Your task to perform on an android device: check storage Image 0: 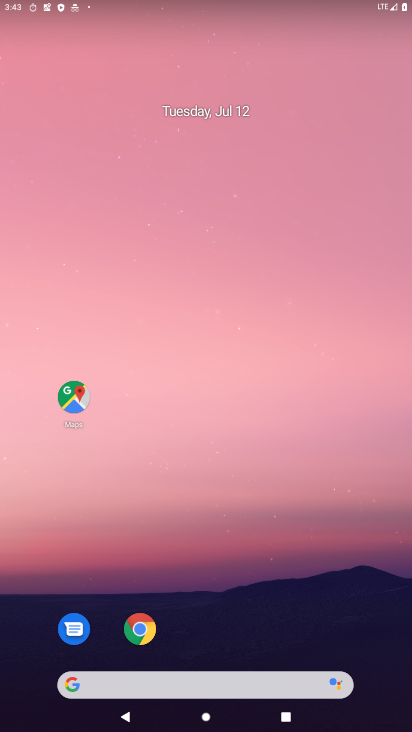
Step 0: drag from (309, 607) to (393, 75)
Your task to perform on an android device: check storage Image 1: 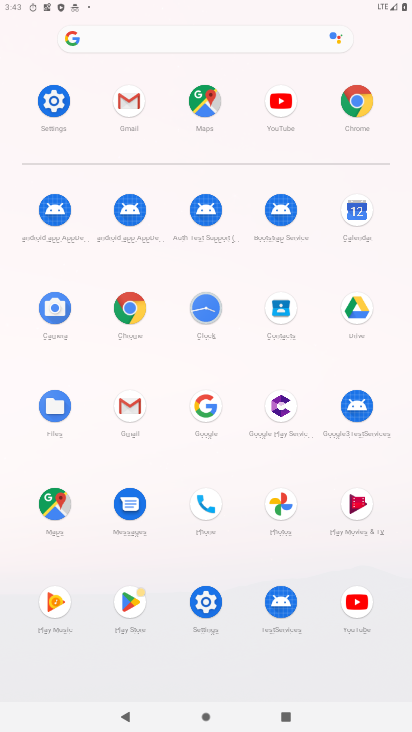
Step 1: click (201, 594)
Your task to perform on an android device: check storage Image 2: 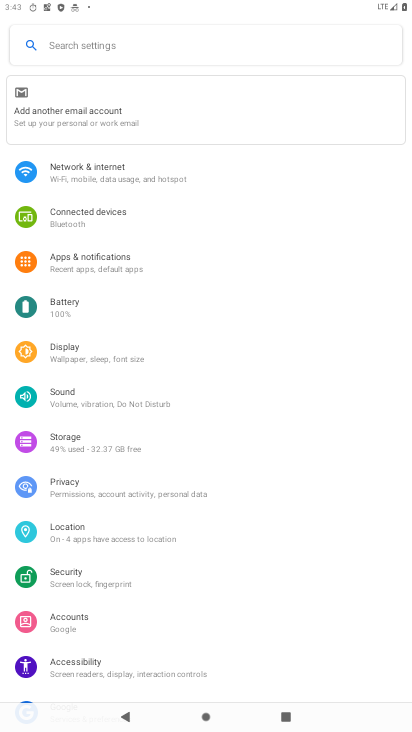
Step 2: click (59, 434)
Your task to perform on an android device: check storage Image 3: 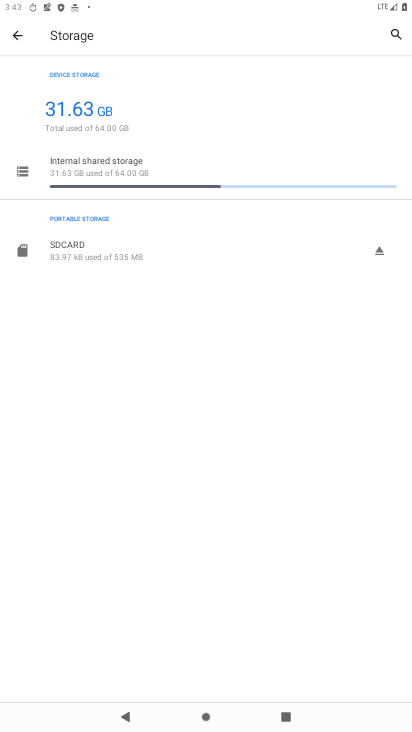
Step 3: task complete